Your task to perform on an android device: turn on priority inbox in the gmail app Image 0: 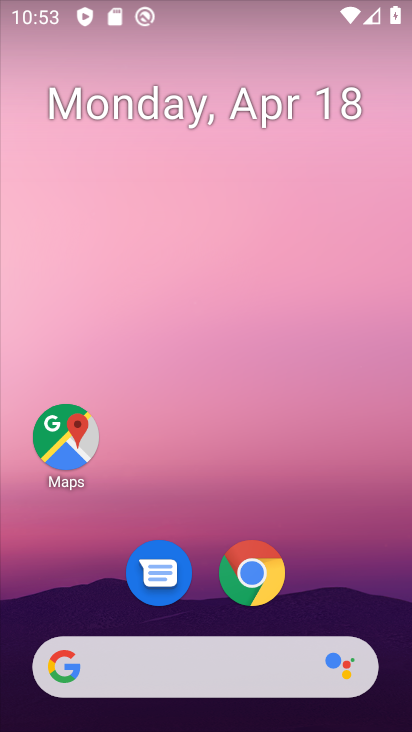
Step 0: drag from (322, 596) to (330, 85)
Your task to perform on an android device: turn on priority inbox in the gmail app Image 1: 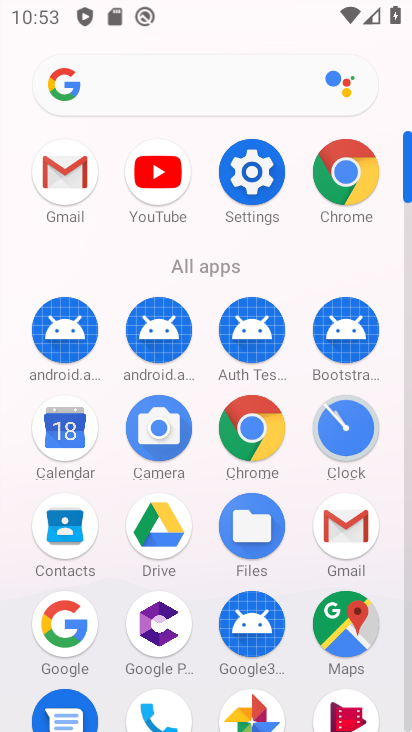
Step 1: click (349, 525)
Your task to perform on an android device: turn on priority inbox in the gmail app Image 2: 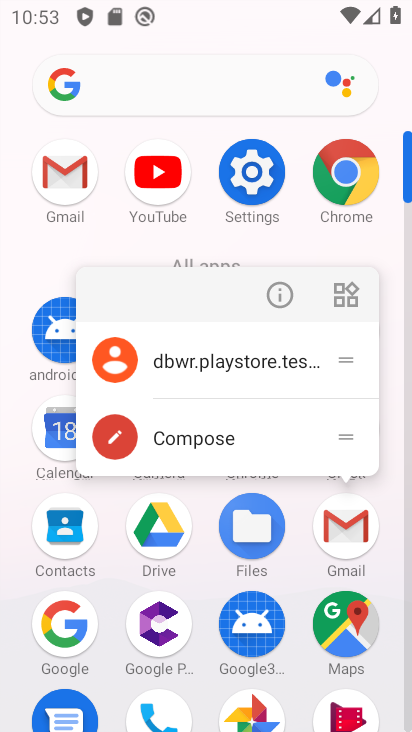
Step 2: click (361, 534)
Your task to perform on an android device: turn on priority inbox in the gmail app Image 3: 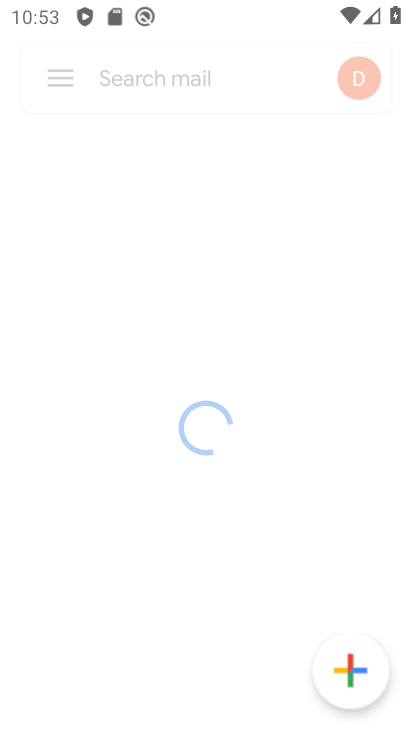
Step 3: click (361, 534)
Your task to perform on an android device: turn on priority inbox in the gmail app Image 4: 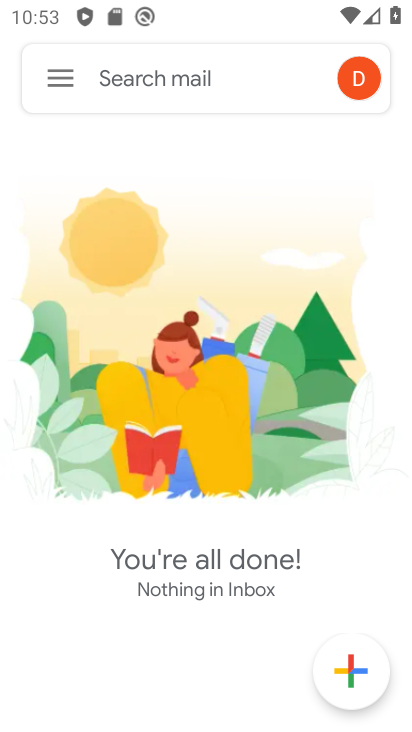
Step 4: click (51, 80)
Your task to perform on an android device: turn on priority inbox in the gmail app Image 5: 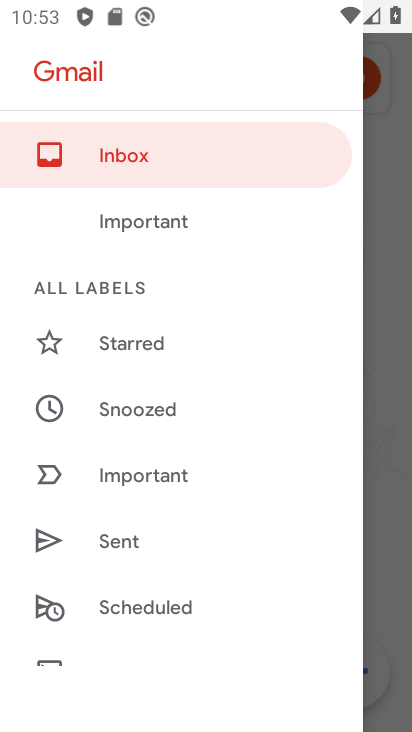
Step 5: drag from (277, 663) to (295, 274)
Your task to perform on an android device: turn on priority inbox in the gmail app Image 6: 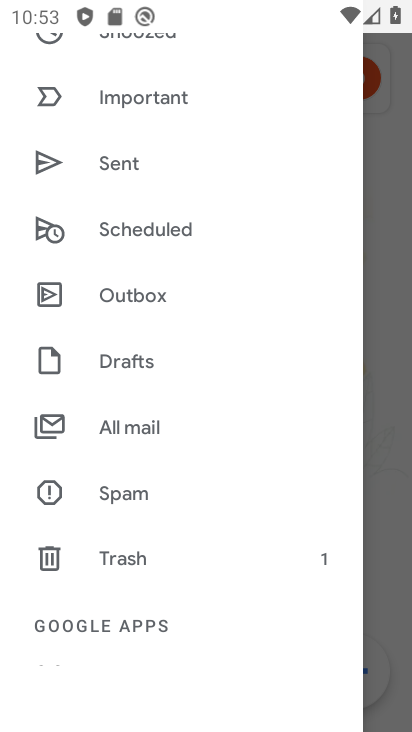
Step 6: drag from (298, 623) to (289, 192)
Your task to perform on an android device: turn on priority inbox in the gmail app Image 7: 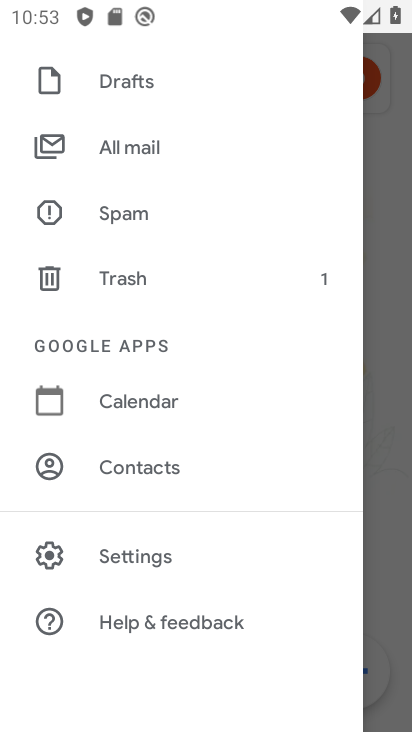
Step 7: click (120, 562)
Your task to perform on an android device: turn on priority inbox in the gmail app Image 8: 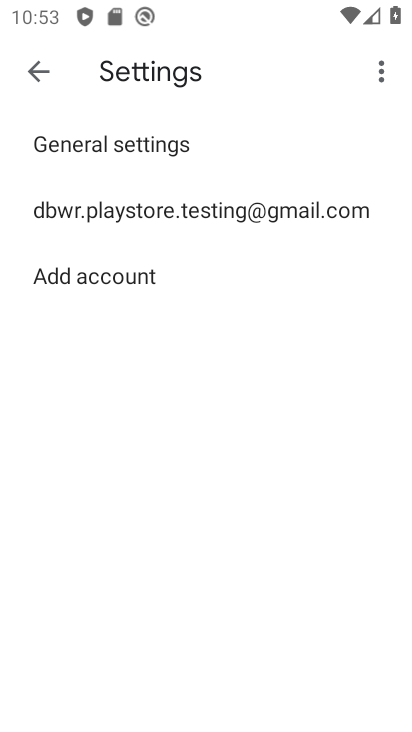
Step 8: click (151, 199)
Your task to perform on an android device: turn on priority inbox in the gmail app Image 9: 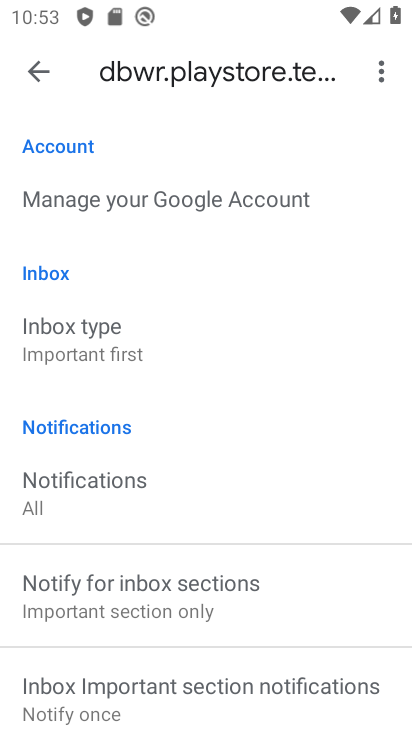
Step 9: click (82, 340)
Your task to perform on an android device: turn on priority inbox in the gmail app Image 10: 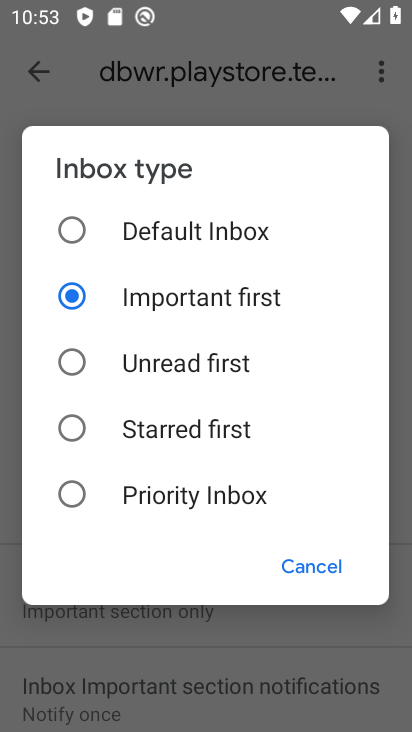
Step 10: click (138, 486)
Your task to perform on an android device: turn on priority inbox in the gmail app Image 11: 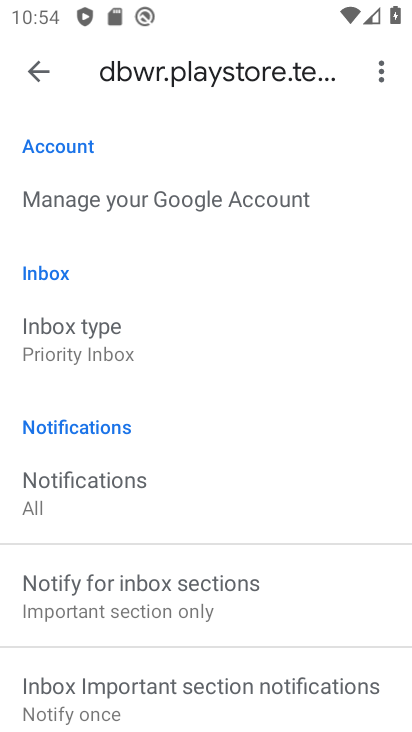
Step 11: task complete